Your task to perform on an android device: Go to ESPN.com Image 0: 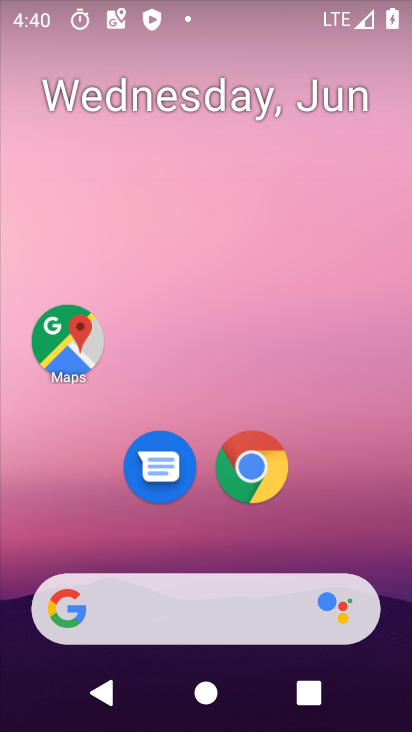
Step 0: click (275, 484)
Your task to perform on an android device: Go to ESPN.com Image 1: 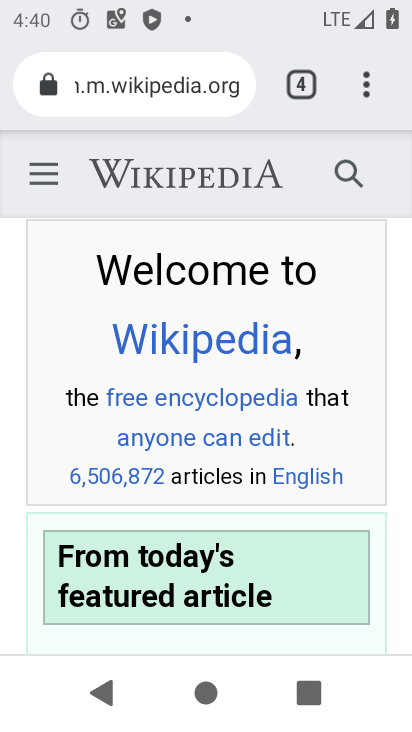
Step 1: click (301, 95)
Your task to perform on an android device: Go to ESPN.com Image 2: 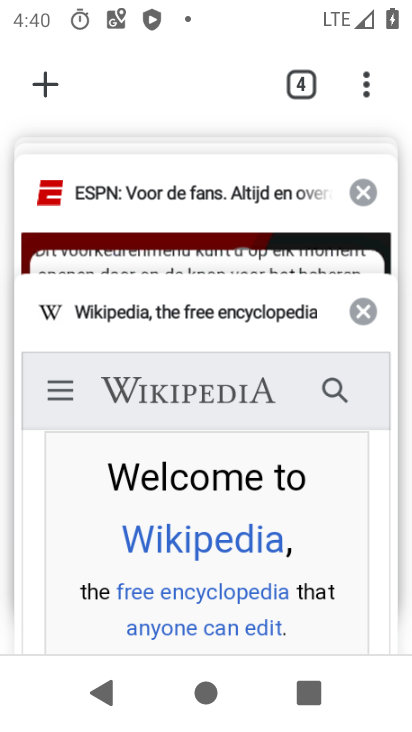
Step 2: click (44, 82)
Your task to perform on an android device: Go to ESPN.com Image 3: 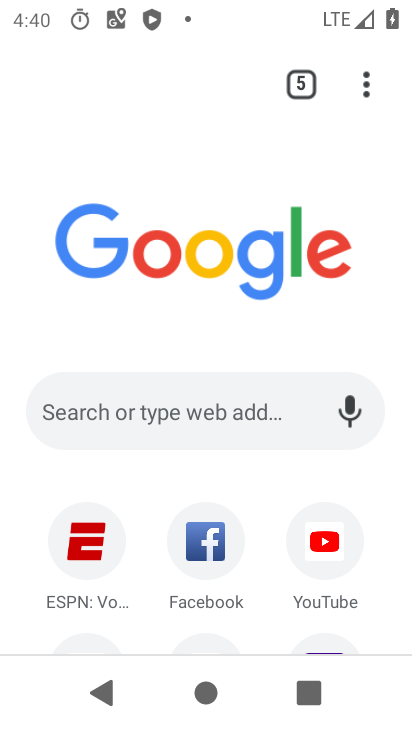
Step 3: click (104, 532)
Your task to perform on an android device: Go to ESPN.com Image 4: 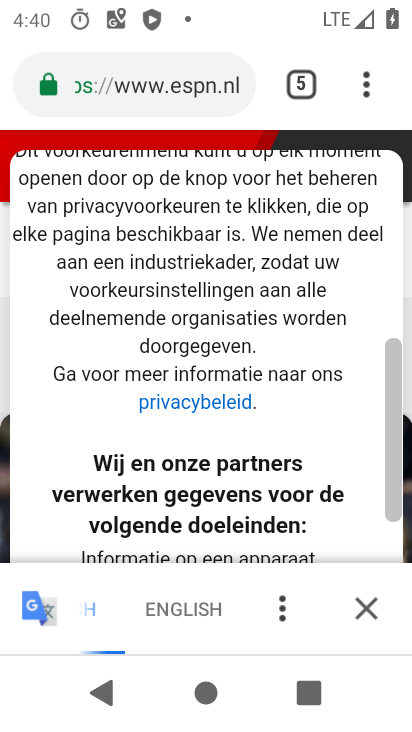
Step 4: task complete